Your task to perform on an android device: Turn on the flashlight Image 0: 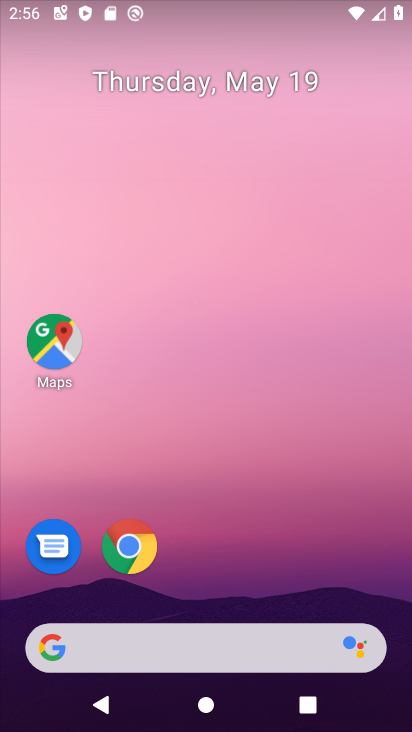
Step 0: drag from (254, 572) to (252, 61)
Your task to perform on an android device: Turn on the flashlight Image 1: 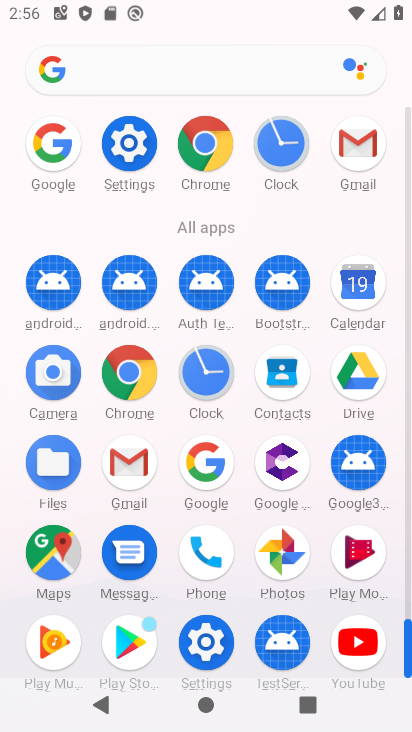
Step 1: click (207, 643)
Your task to perform on an android device: Turn on the flashlight Image 2: 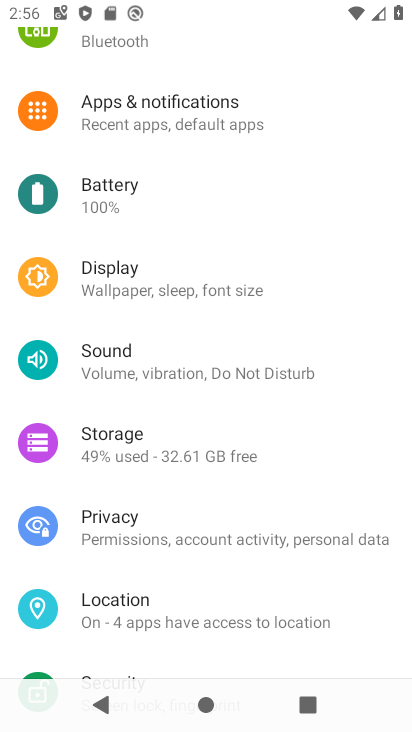
Step 2: drag from (183, 265) to (231, 351)
Your task to perform on an android device: Turn on the flashlight Image 3: 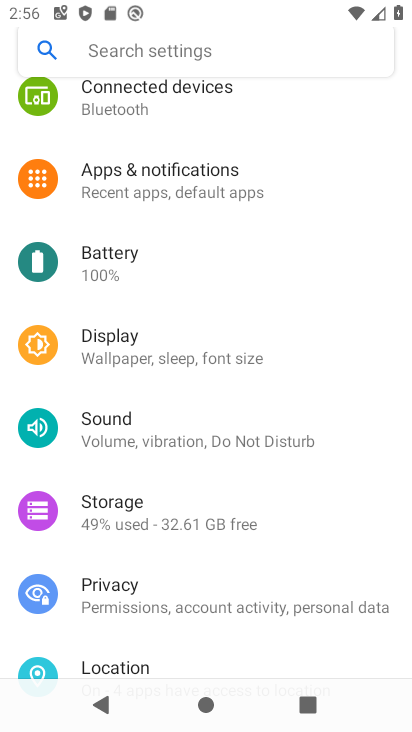
Step 3: click (218, 361)
Your task to perform on an android device: Turn on the flashlight Image 4: 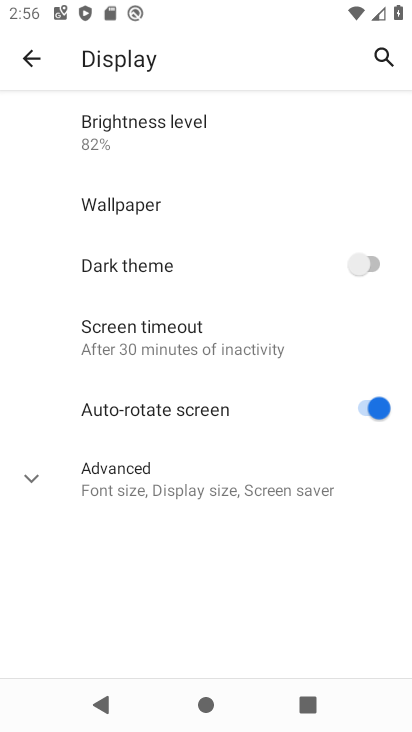
Step 4: click (197, 492)
Your task to perform on an android device: Turn on the flashlight Image 5: 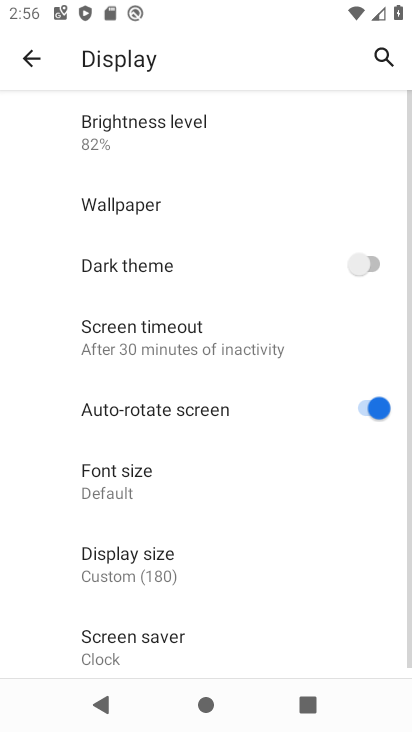
Step 5: drag from (185, 553) to (230, 437)
Your task to perform on an android device: Turn on the flashlight Image 6: 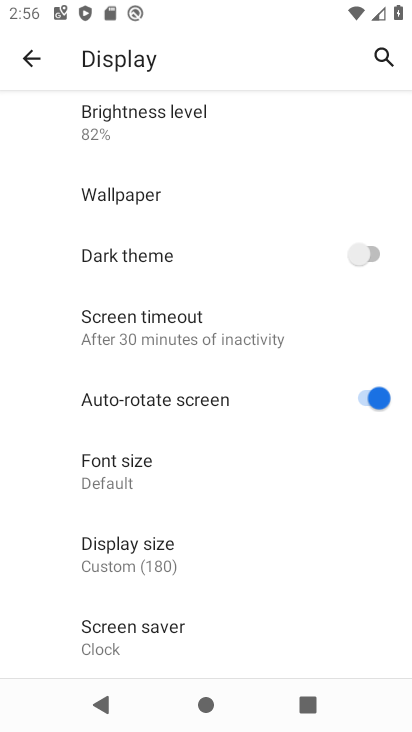
Step 6: click (207, 331)
Your task to perform on an android device: Turn on the flashlight Image 7: 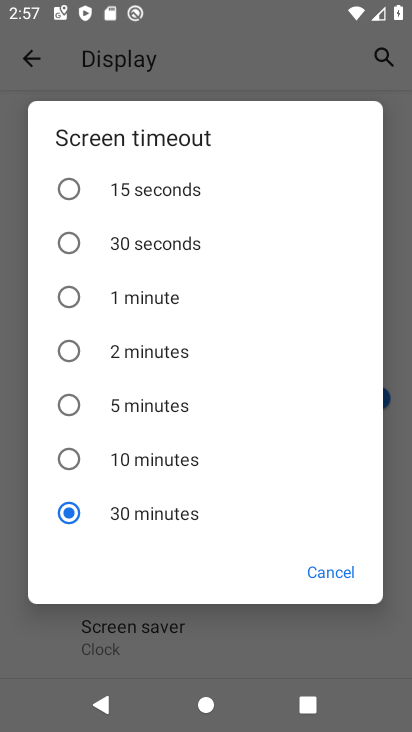
Step 7: click (31, 59)
Your task to perform on an android device: Turn on the flashlight Image 8: 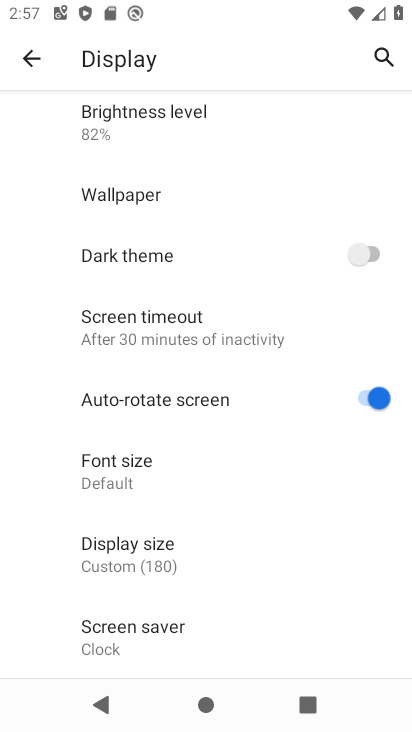
Step 8: click (31, 59)
Your task to perform on an android device: Turn on the flashlight Image 9: 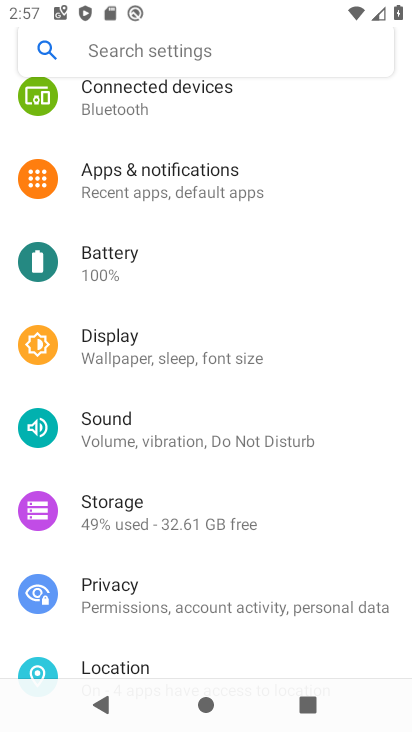
Step 9: click (151, 424)
Your task to perform on an android device: Turn on the flashlight Image 10: 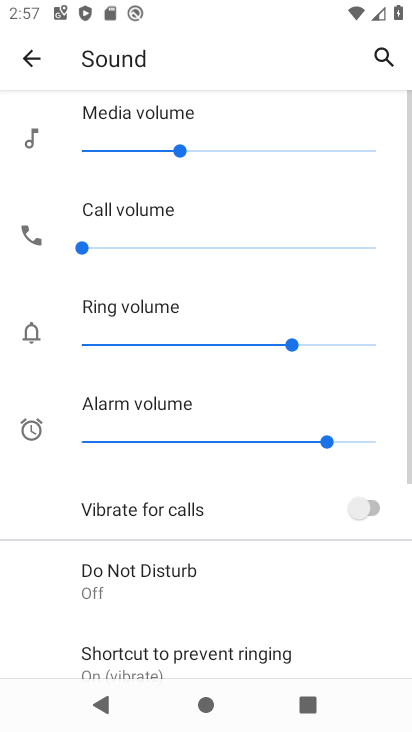
Step 10: drag from (138, 528) to (160, 436)
Your task to perform on an android device: Turn on the flashlight Image 11: 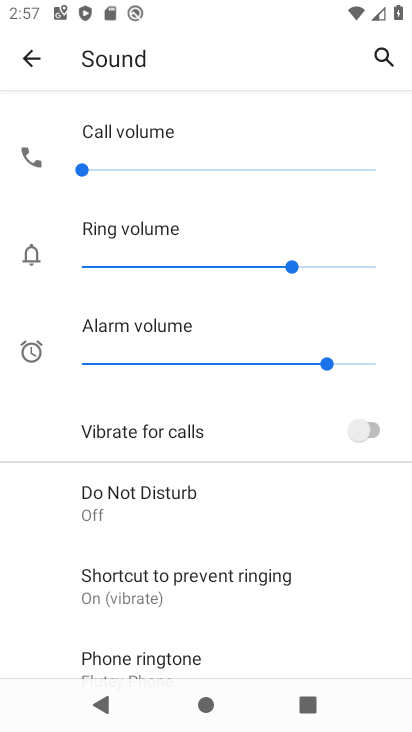
Step 11: drag from (148, 579) to (176, 465)
Your task to perform on an android device: Turn on the flashlight Image 12: 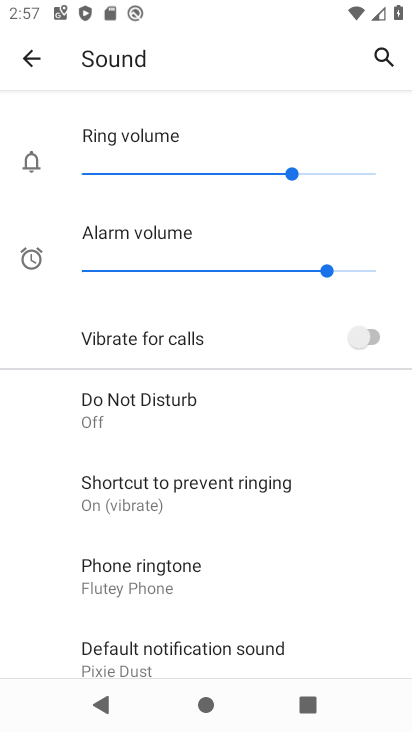
Step 12: drag from (155, 611) to (196, 460)
Your task to perform on an android device: Turn on the flashlight Image 13: 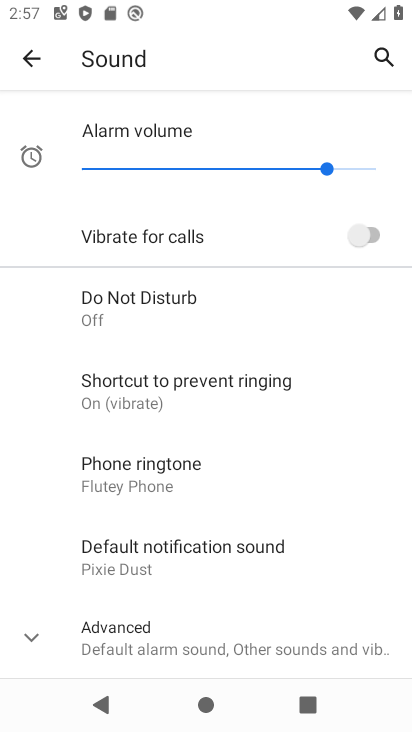
Step 13: drag from (195, 625) to (197, 568)
Your task to perform on an android device: Turn on the flashlight Image 14: 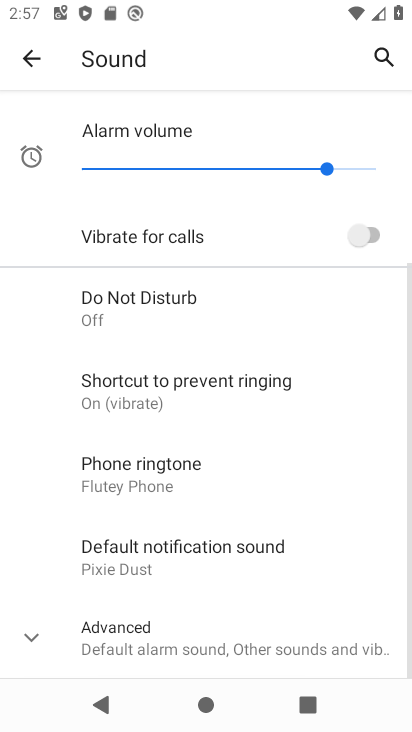
Step 14: click (193, 645)
Your task to perform on an android device: Turn on the flashlight Image 15: 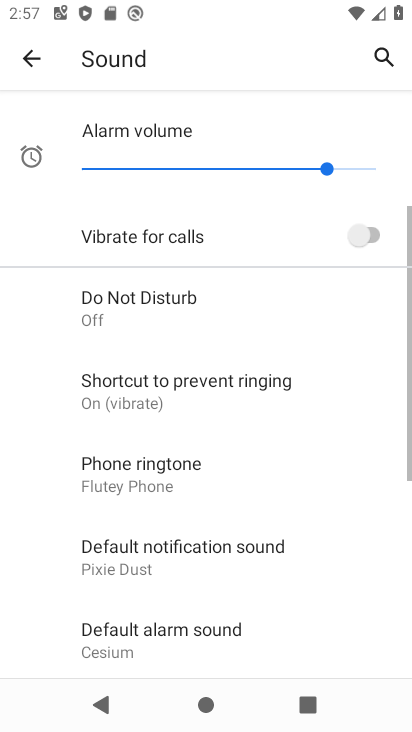
Step 15: drag from (198, 635) to (232, 484)
Your task to perform on an android device: Turn on the flashlight Image 16: 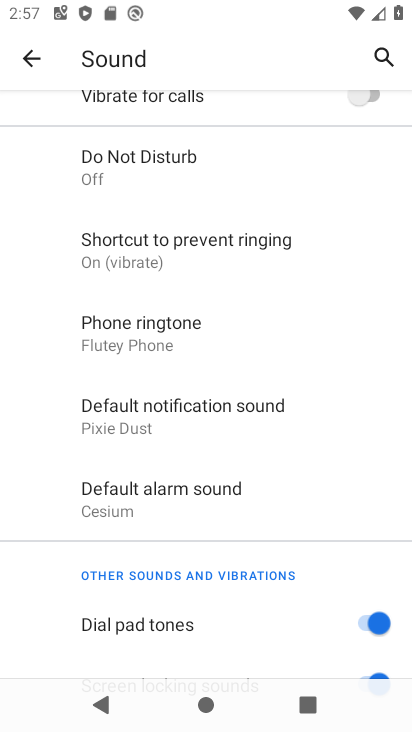
Step 16: drag from (238, 643) to (254, 456)
Your task to perform on an android device: Turn on the flashlight Image 17: 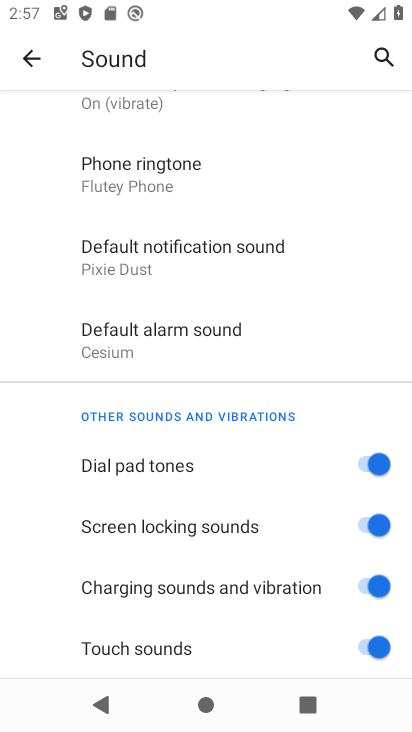
Step 17: drag from (221, 622) to (277, 382)
Your task to perform on an android device: Turn on the flashlight Image 18: 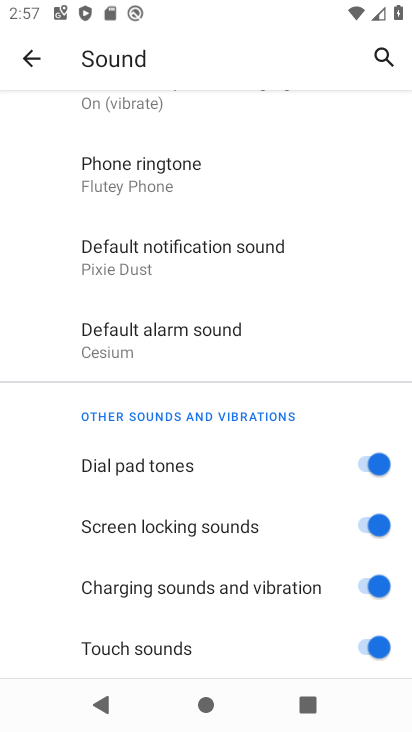
Step 18: click (36, 58)
Your task to perform on an android device: Turn on the flashlight Image 19: 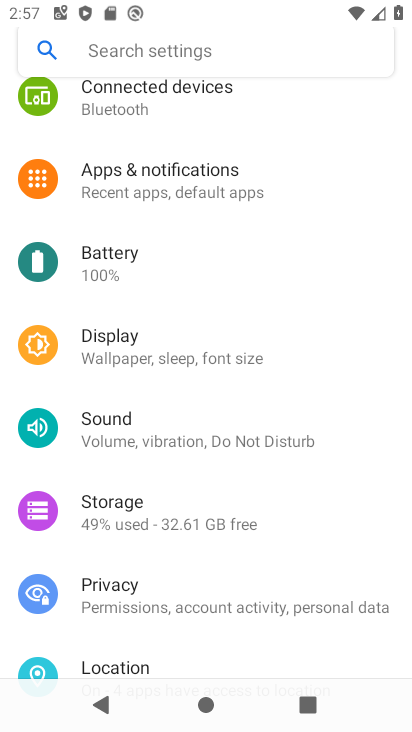
Step 19: drag from (128, 473) to (223, 356)
Your task to perform on an android device: Turn on the flashlight Image 20: 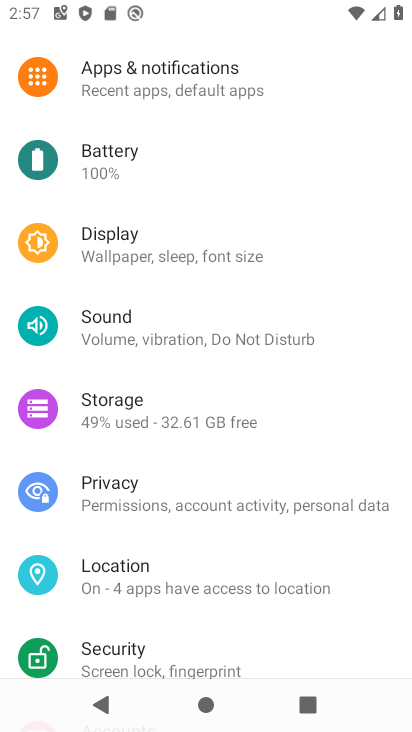
Step 20: drag from (188, 502) to (215, 386)
Your task to perform on an android device: Turn on the flashlight Image 21: 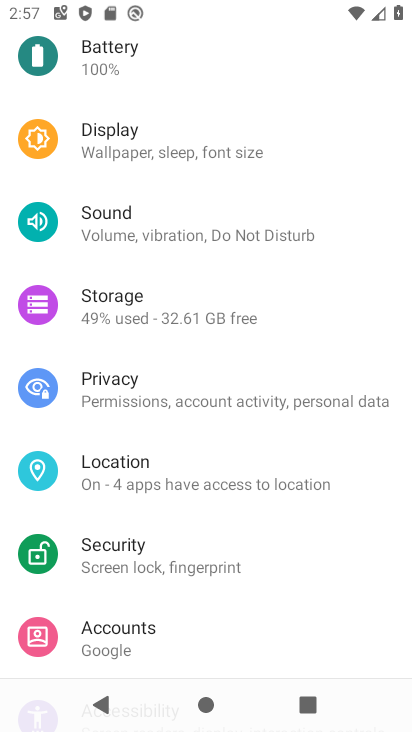
Step 21: drag from (178, 522) to (221, 409)
Your task to perform on an android device: Turn on the flashlight Image 22: 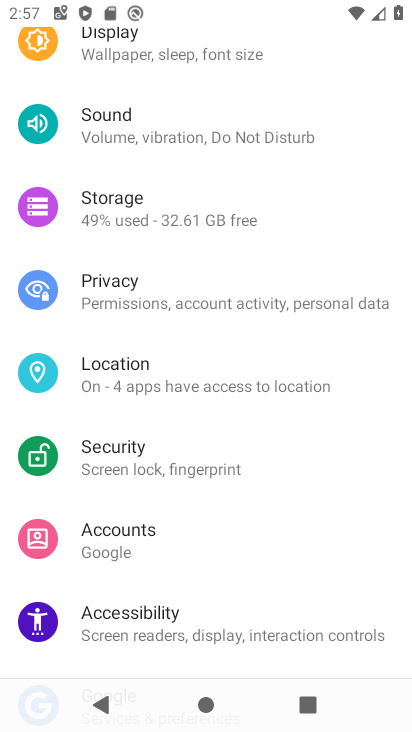
Step 22: drag from (139, 570) to (197, 455)
Your task to perform on an android device: Turn on the flashlight Image 23: 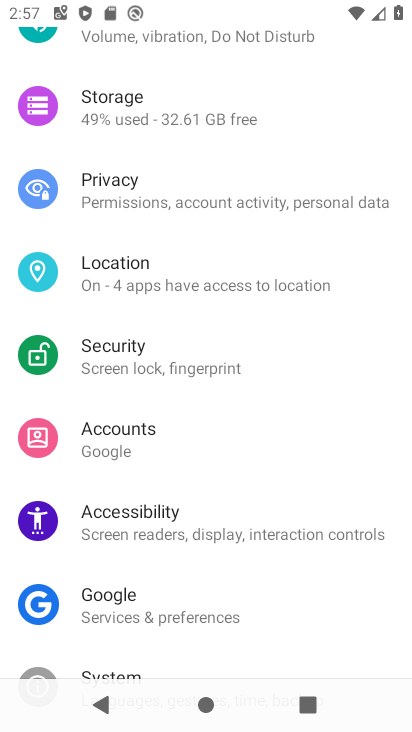
Step 23: click (191, 515)
Your task to perform on an android device: Turn on the flashlight Image 24: 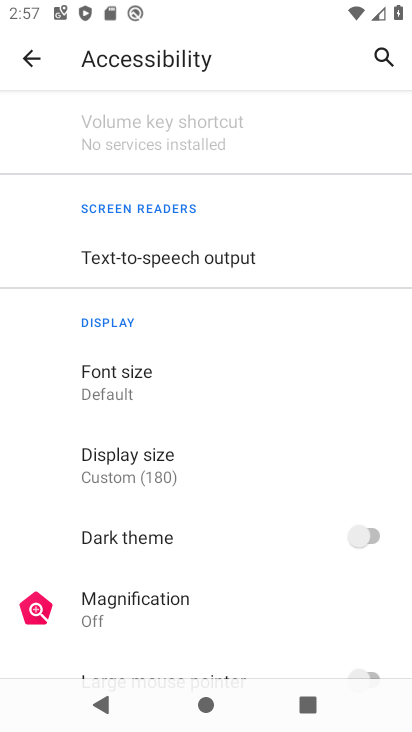
Step 24: task complete